Your task to perform on an android device: Go to ESPN.com Image 0: 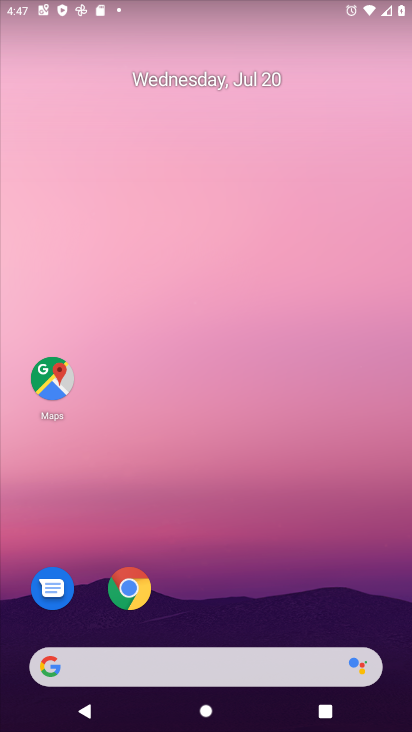
Step 0: drag from (277, 548) to (306, 106)
Your task to perform on an android device: Go to ESPN.com Image 1: 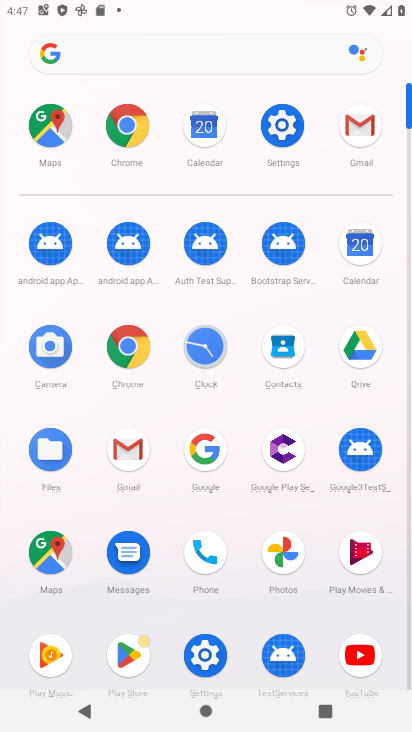
Step 1: click (123, 123)
Your task to perform on an android device: Go to ESPN.com Image 2: 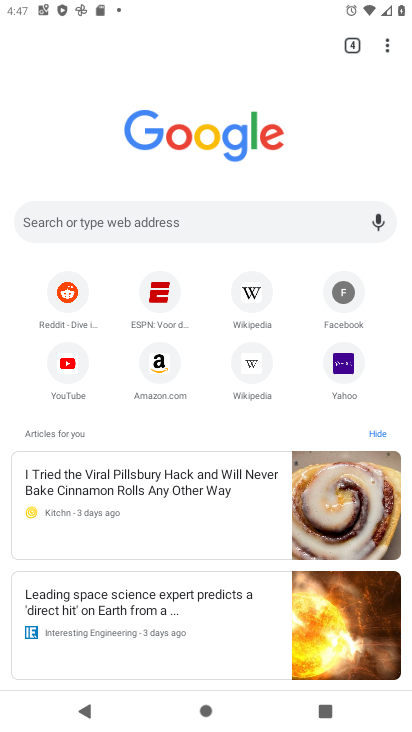
Step 2: click (202, 202)
Your task to perform on an android device: Go to ESPN.com Image 3: 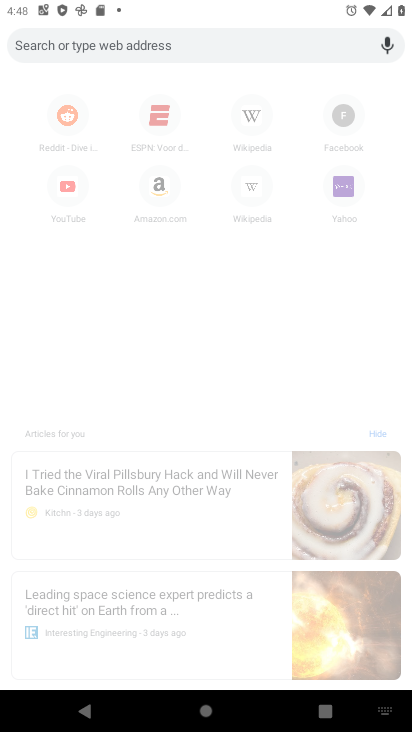
Step 3: type "espn.com"
Your task to perform on an android device: Go to ESPN.com Image 4: 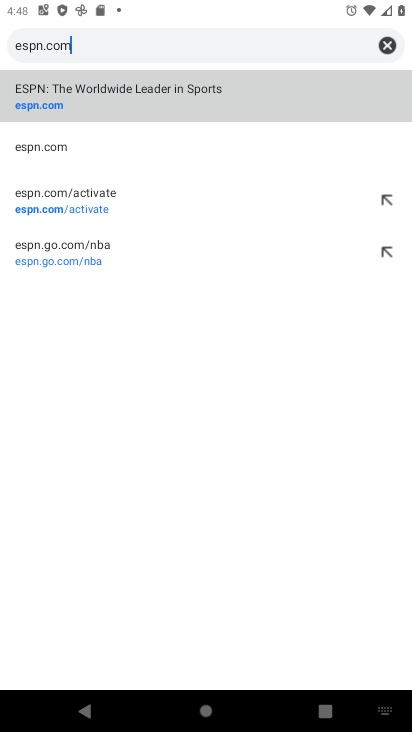
Step 4: click (87, 106)
Your task to perform on an android device: Go to ESPN.com Image 5: 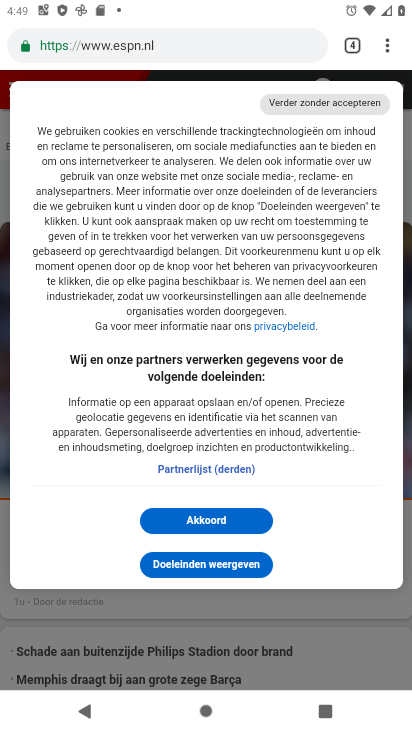
Step 5: task complete